Your task to perform on an android device: add a contact in the contacts app Image 0: 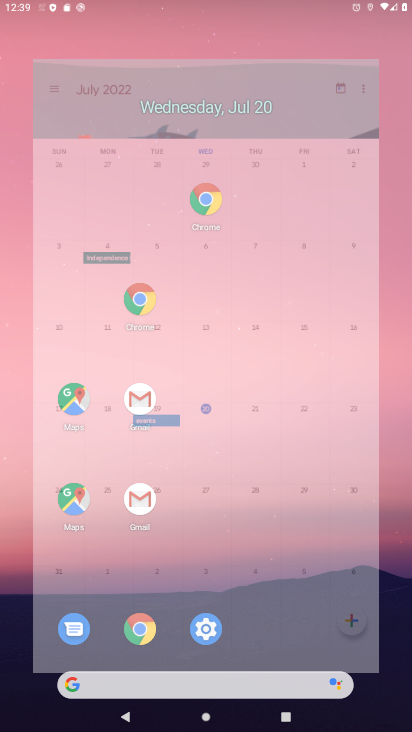
Step 0: drag from (263, 691) to (229, 101)
Your task to perform on an android device: add a contact in the contacts app Image 1: 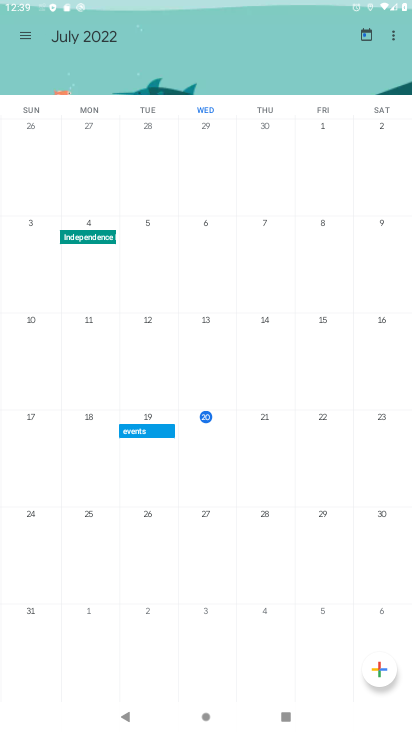
Step 1: press back button
Your task to perform on an android device: add a contact in the contacts app Image 2: 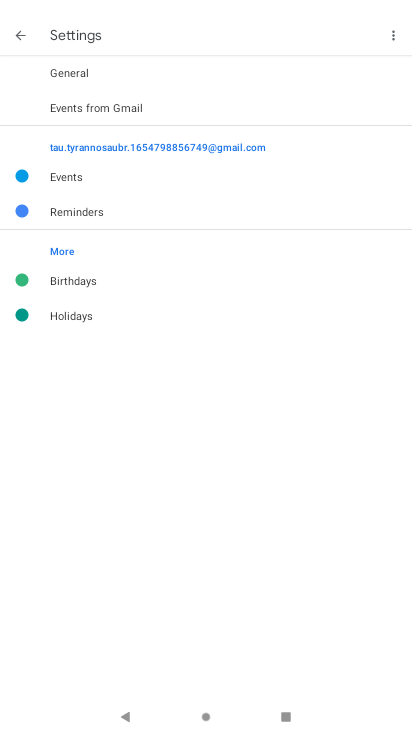
Step 2: click (25, 32)
Your task to perform on an android device: add a contact in the contacts app Image 3: 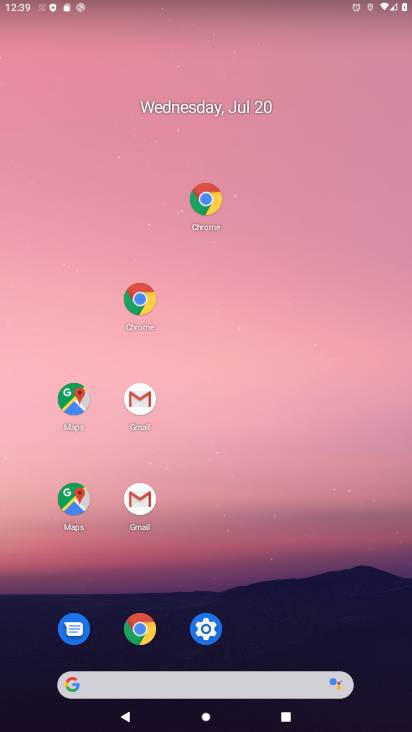
Step 3: drag from (167, 538) to (149, 219)
Your task to perform on an android device: add a contact in the contacts app Image 4: 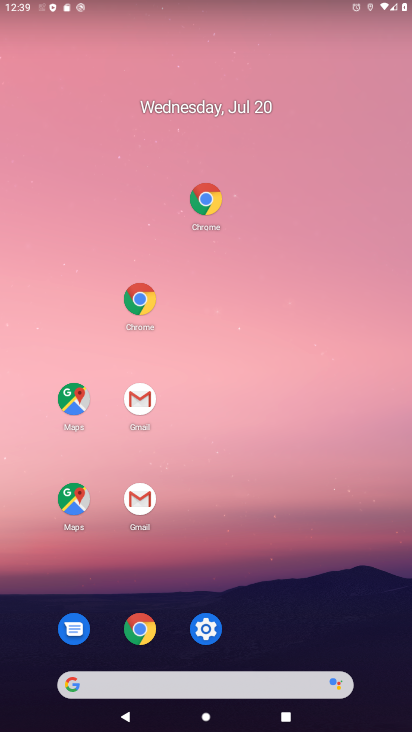
Step 4: drag from (261, 654) to (222, 235)
Your task to perform on an android device: add a contact in the contacts app Image 5: 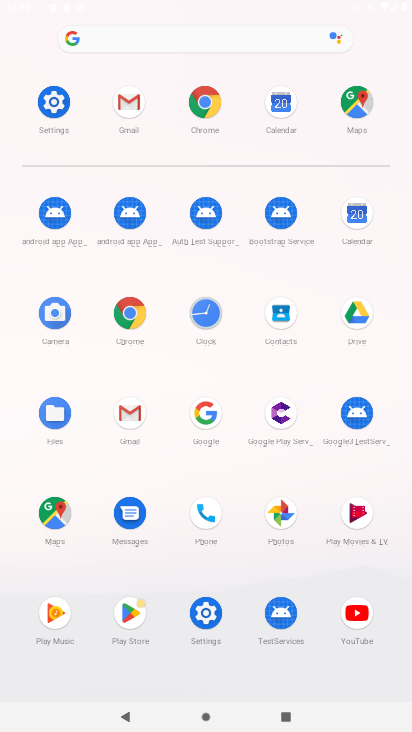
Step 5: click (283, 308)
Your task to perform on an android device: add a contact in the contacts app Image 6: 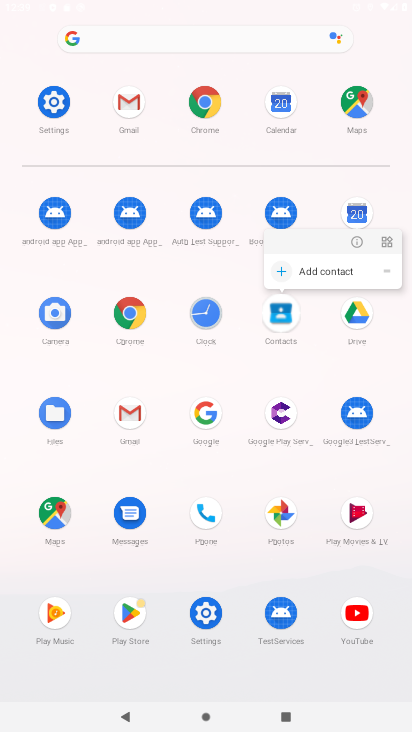
Step 6: click (283, 311)
Your task to perform on an android device: add a contact in the contacts app Image 7: 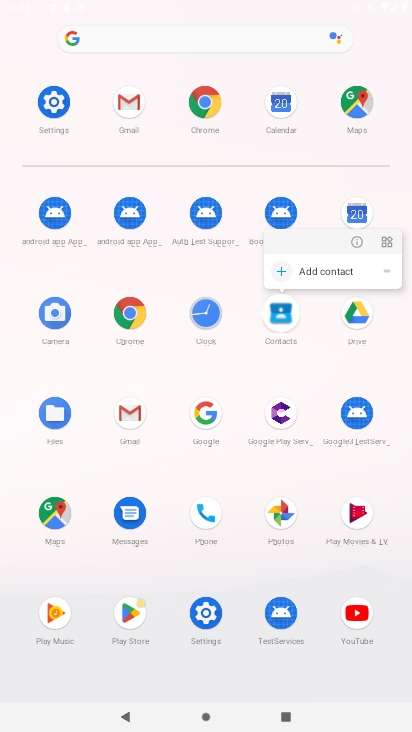
Step 7: click (283, 312)
Your task to perform on an android device: add a contact in the contacts app Image 8: 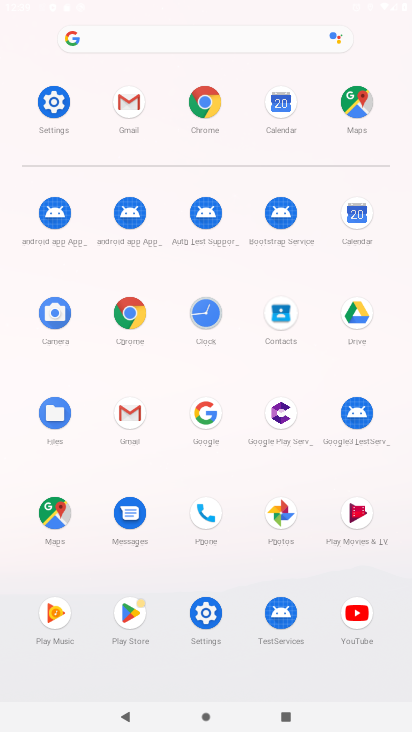
Step 8: click (283, 312)
Your task to perform on an android device: add a contact in the contacts app Image 9: 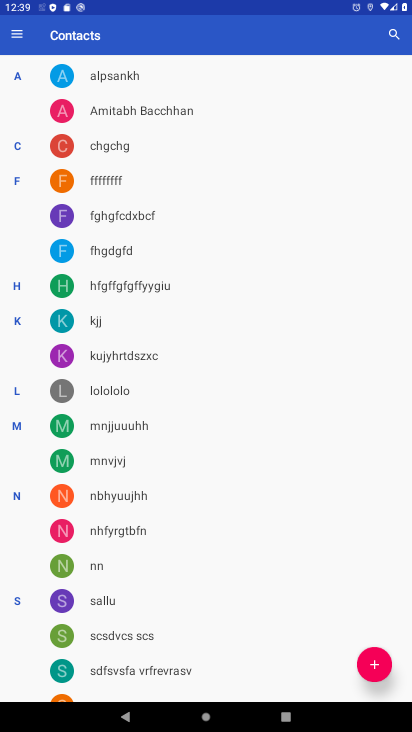
Step 9: click (371, 663)
Your task to perform on an android device: add a contact in the contacts app Image 10: 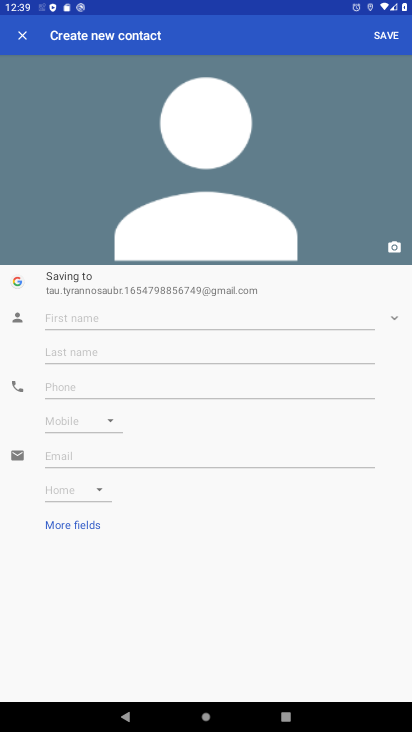
Step 10: click (62, 312)
Your task to perform on an android device: add a contact in the contacts app Image 11: 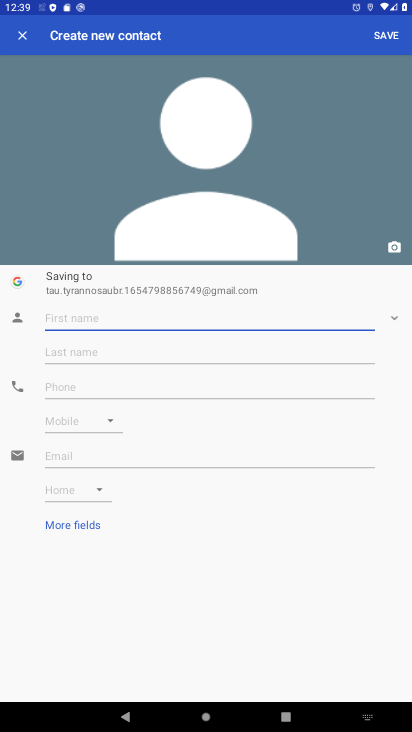
Step 11: type "vvjdsnjvv"
Your task to perform on an android device: add a contact in the contacts app Image 12: 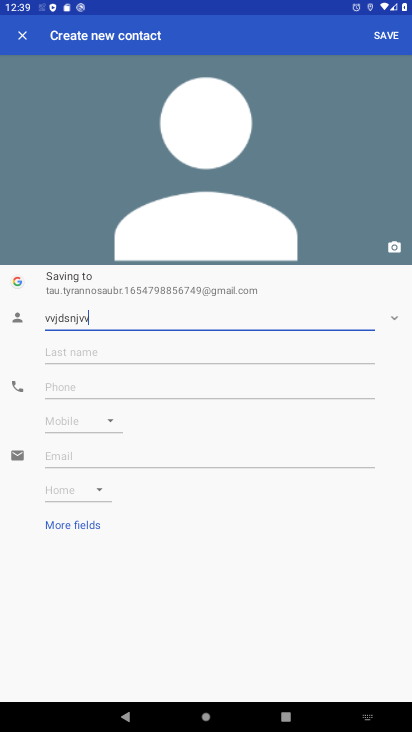
Step 12: click (61, 383)
Your task to perform on an android device: add a contact in the contacts app Image 13: 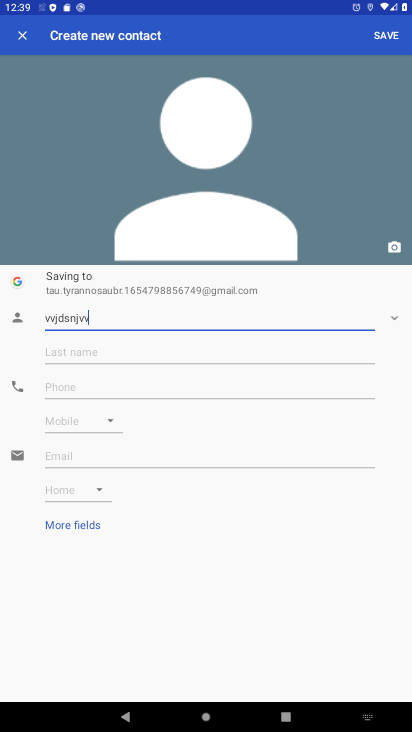
Step 13: click (61, 383)
Your task to perform on an android device: add a contact in the contacts app Image 14: 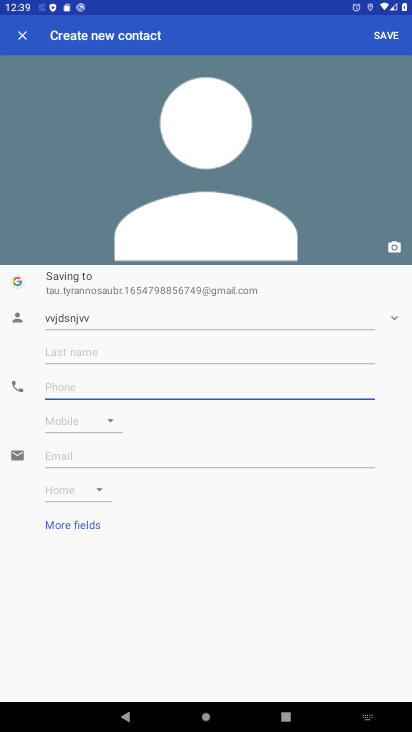
Step 14: type "64947759243294"
Your task to perform on an android device: add a contact in the contacts app Image 15: 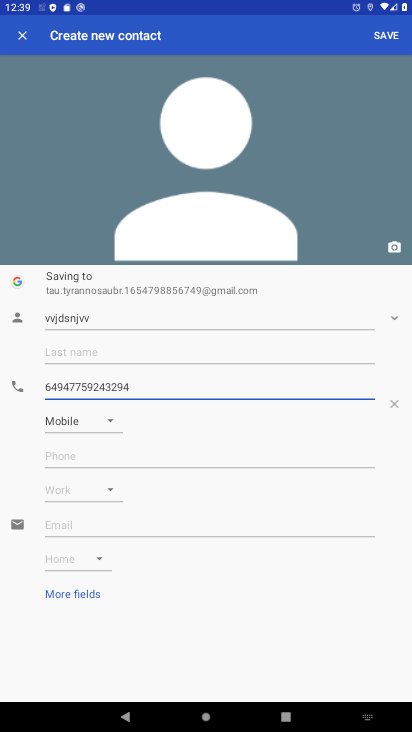
Step 15: click (387, 35)
Your task to perform on an android device: add a contact in the contacts app Image 16: 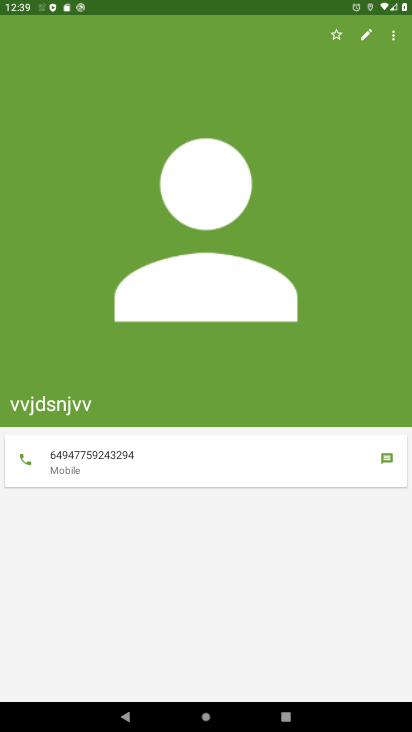
Step 16: task complete